Your task to perform on an android device: Search for custom wallets on etsy. Image 0: 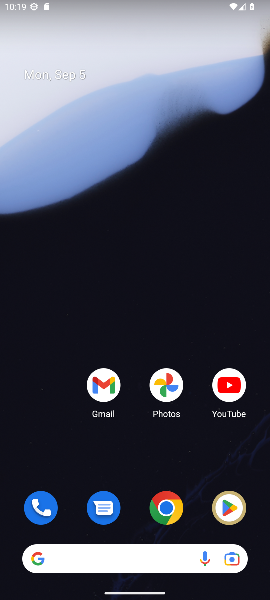
Step 0: drag from (162, 390) to (186, 18)
Your task to perform on an android device: Search for custom wallets on etsy. Image 1: 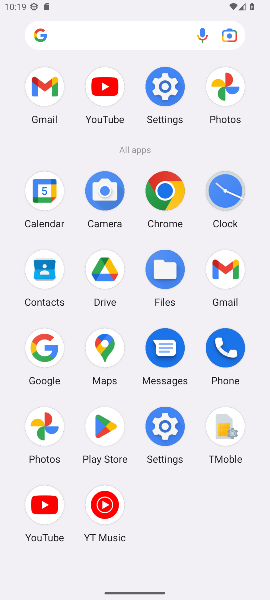
Step 1: click (158, 187)
Your task to perform on an android device: Search for custom wallets on etsy. Image 2: 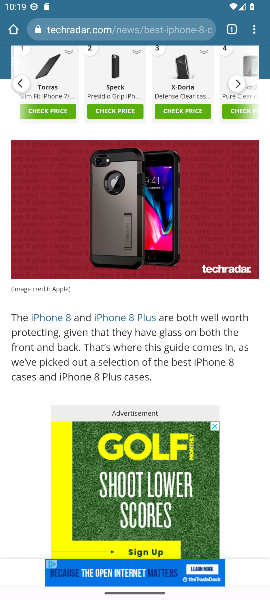
Step 2: click (129, 22)
Your task to perform on an android device: Search for custom wallets on etsy. Image 3: 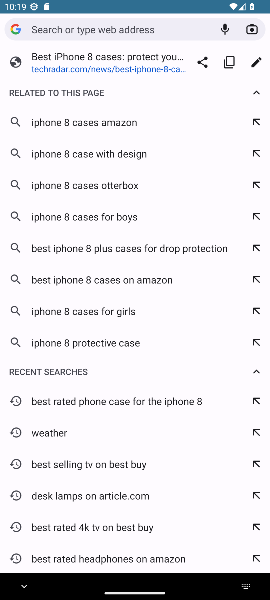
Step 3: type "custom wallets on etsy"
Your task to perform on an android device: Search for custom wallets on etsy. Image 4: 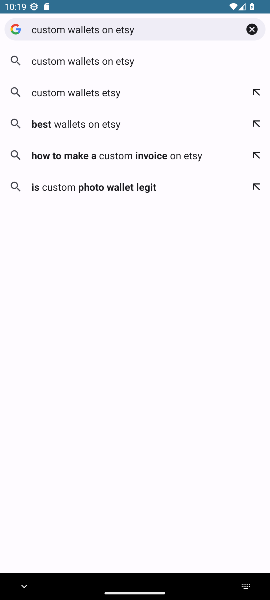
Step 4: press enter
Your task to perform on an android device: Search for custom wallets on etsy. Image 5: 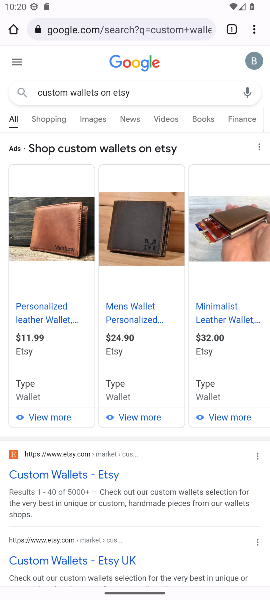
Step 5: click (75, 471)
Your task to perform on an android device: Search for custom wallets on etsy. Image 6: 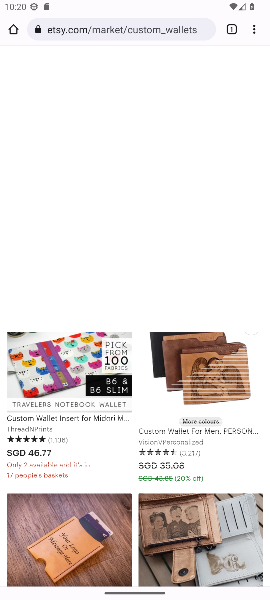
Step 6: task complete